Your task to perform on an android device: turn pop-ups on in chrome Image 0: 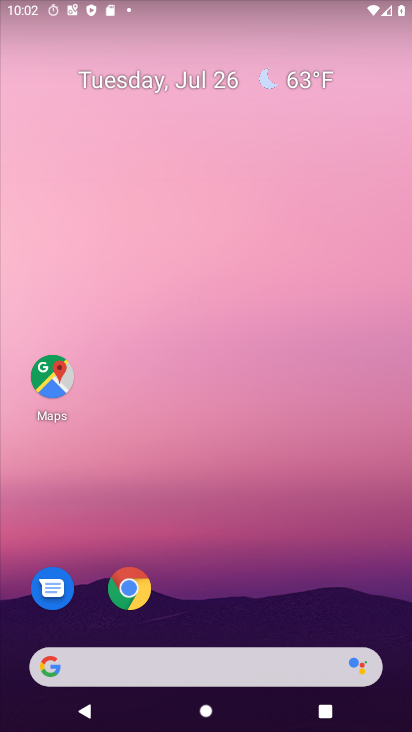
Step 0: click (135, 584)
Your task to perform on an android device: turn pop-ups on in chrome Image 1: 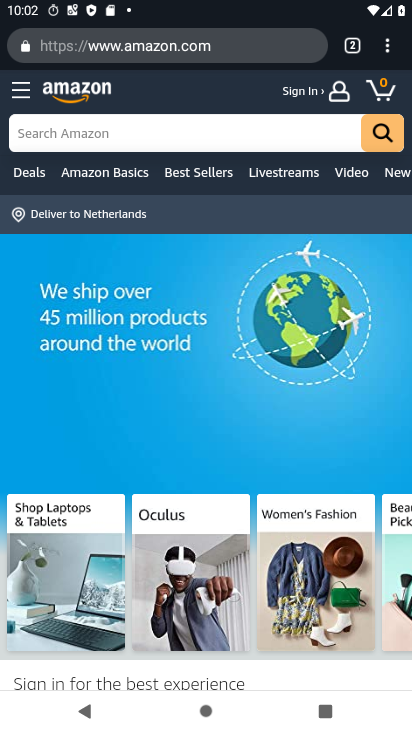
Step 1: click (381, 40)
Your task to perform on an android device: turn pop-ups on in chrome Image 2: 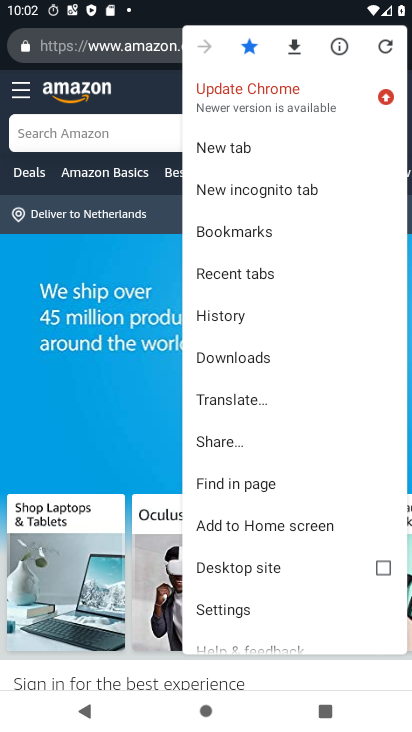
Step 2: click (254, 608)
Your task to perform on an android device: turn pop-ups on in chrome Image 3: 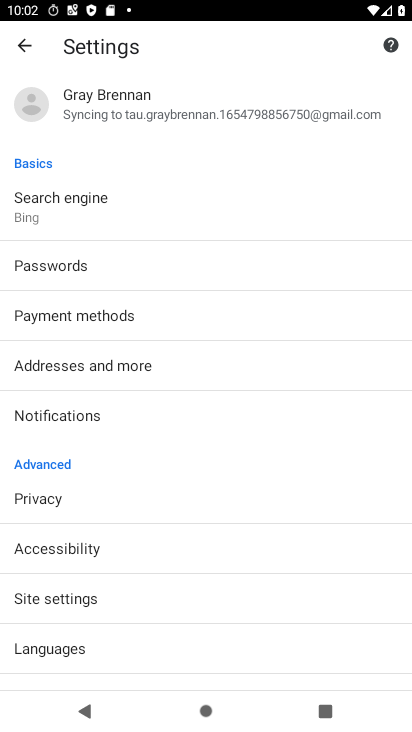
Step 3: click (103, 617)
Your task to perform on an android device: turn pop-ups on in chrome Image 4: 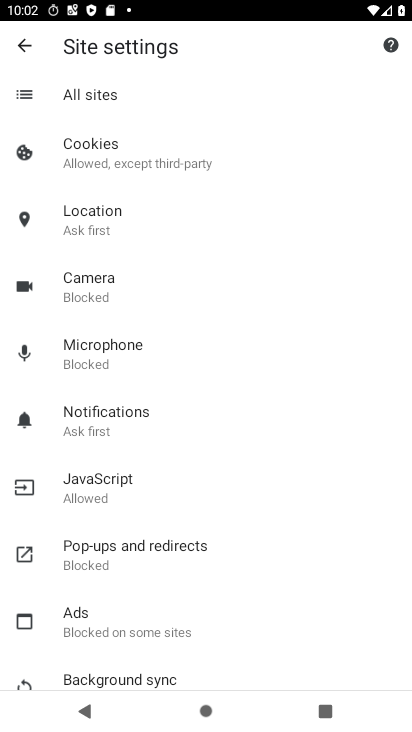
Step 4: click (99, 563)
Your task to perform on an android device: turn pop-ups on in chrome Image 5: 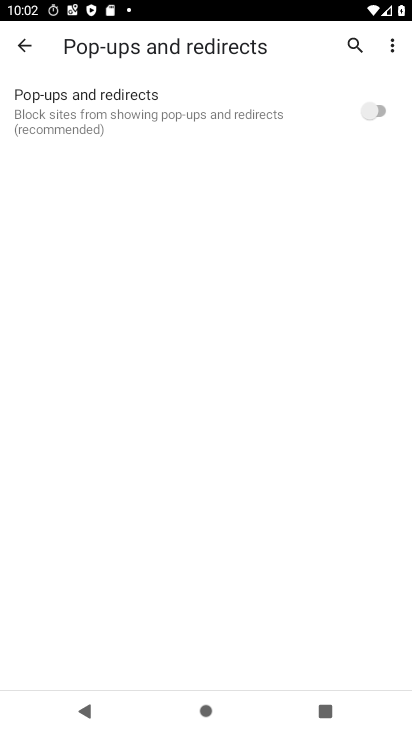
Step 5: click (377, 118)
Your task to perform on an android device: turn pop-ups on in chrome Image 6: 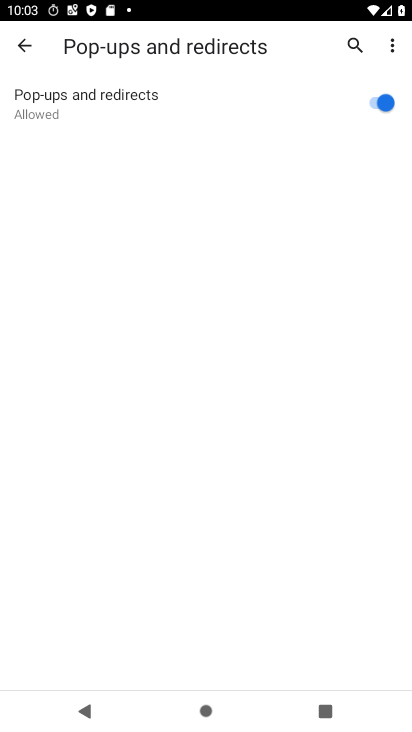
Step 6: task complete